Your task to perform on an android device: Go to display settings Image 0: 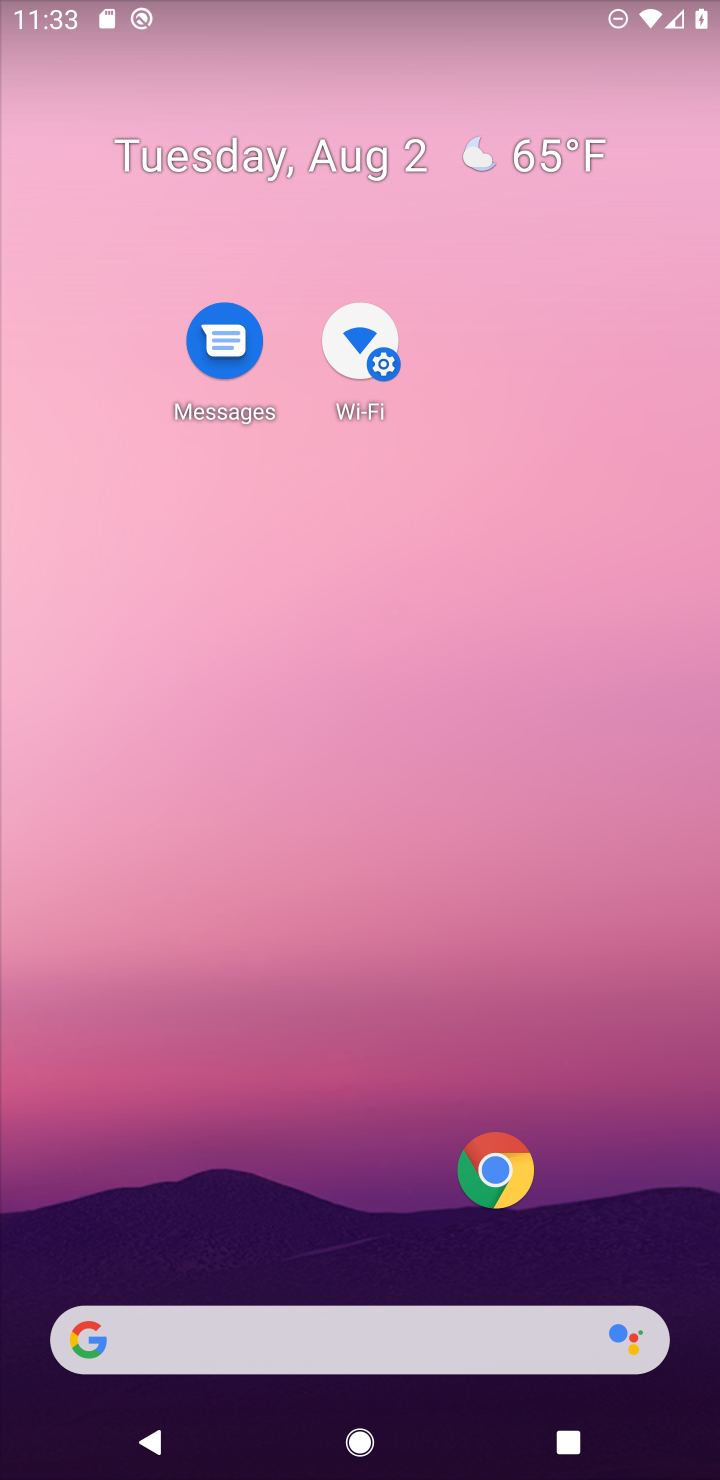
Step 0: drag from (337, 1263) to (319, 561)
Your task to perform on an android device: Go to display settings Image 1: 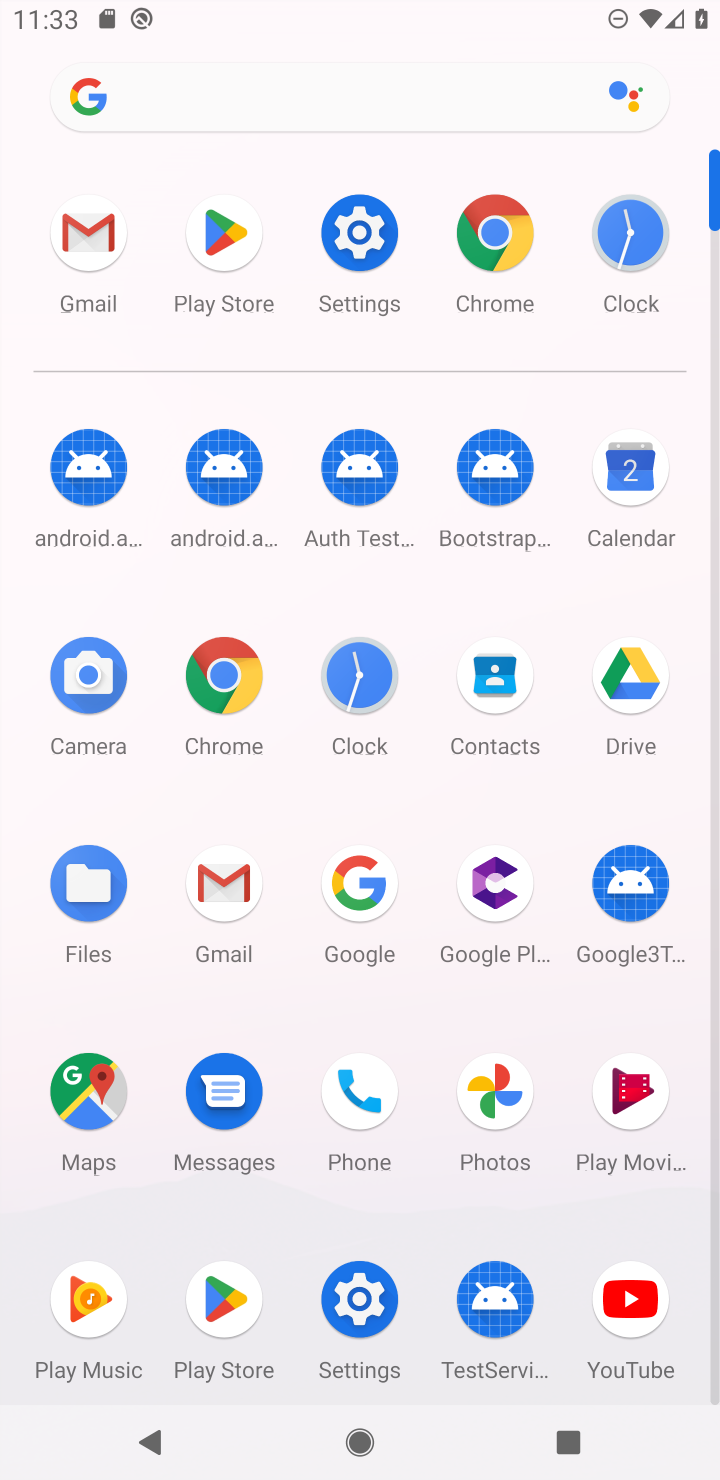
Step 1: click (360, 216)
Your task to perform on an android device: Go to display settings Image 2: 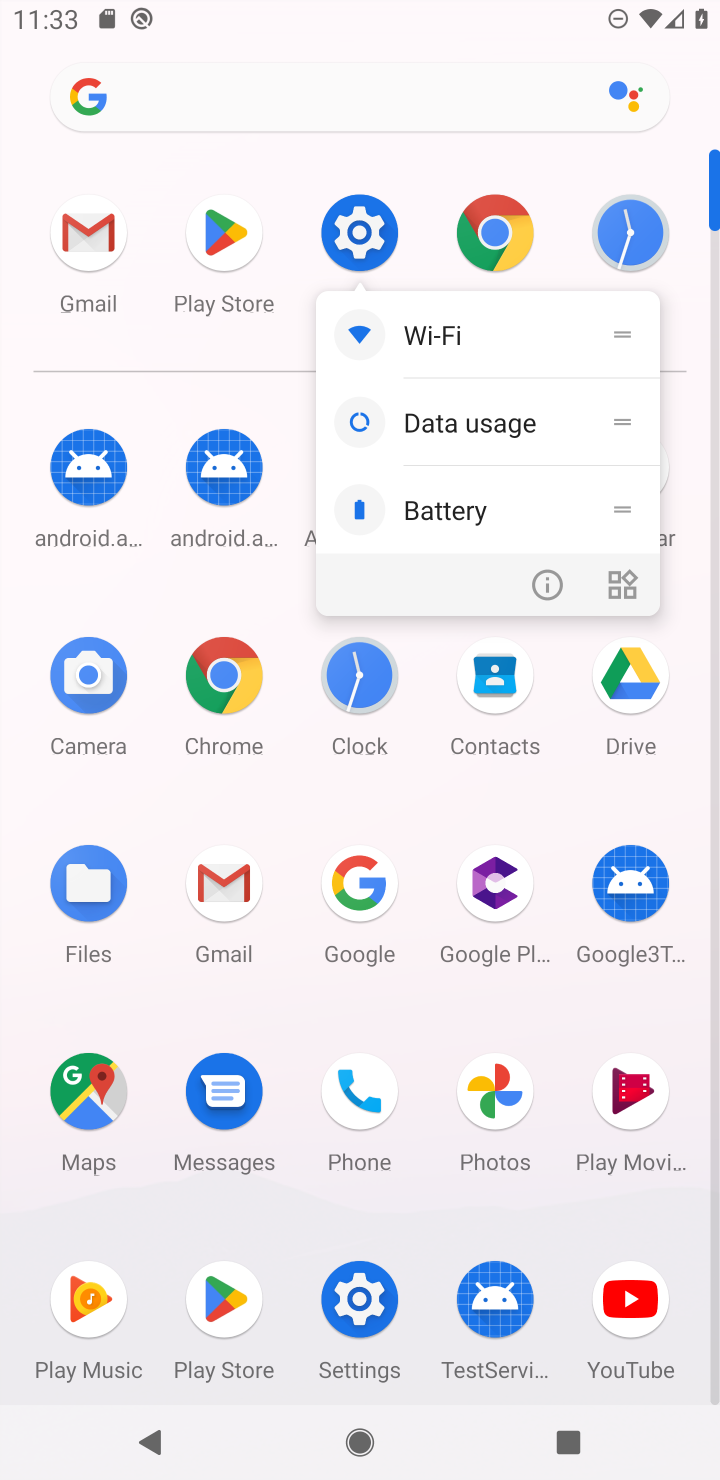
Step 2: click (545, 582)
Your task to perform on an android device: Go to display settings Image 3: 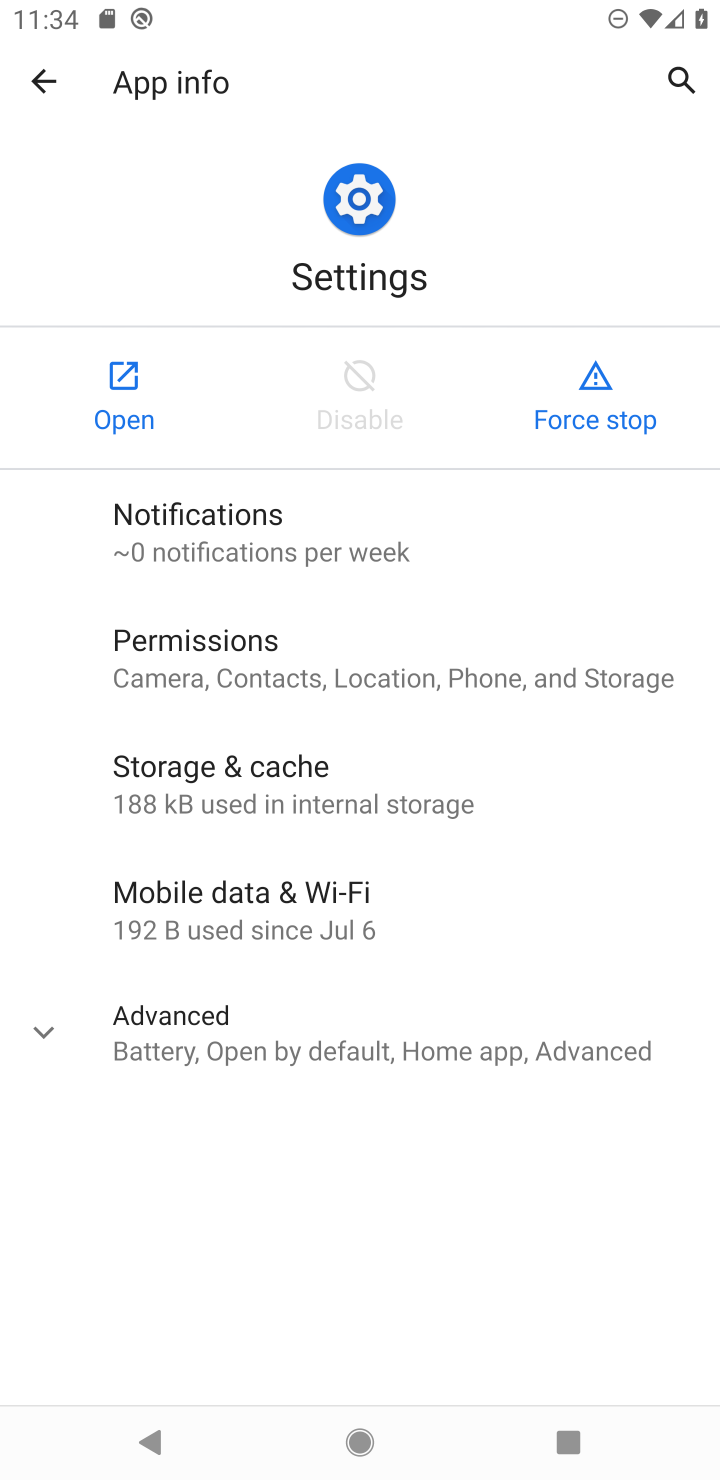
Step 3: click (130, 397)
Your task to perform on an android device: Go to display settings Image 4: 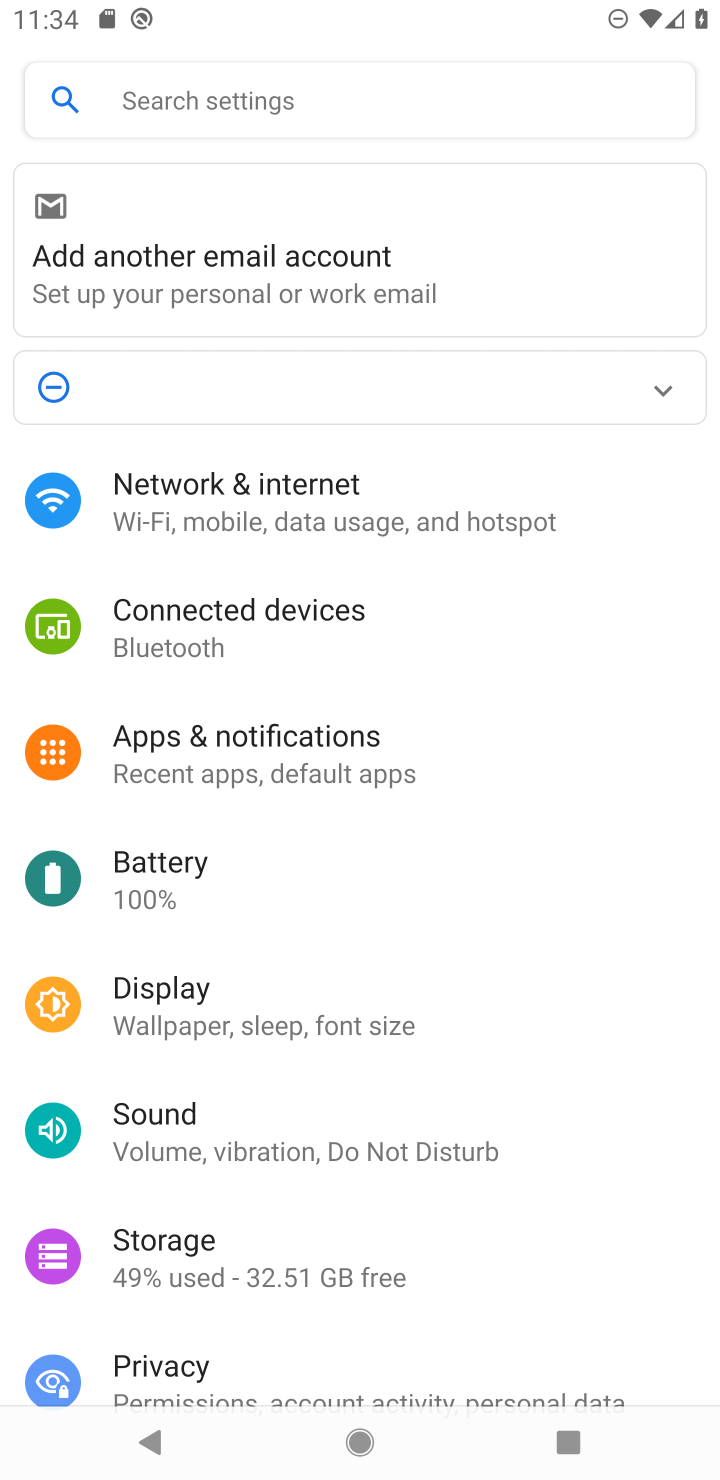
Step 4: click (247, 1013)
Your task to perform on an android device: Go to display settings Image 5: 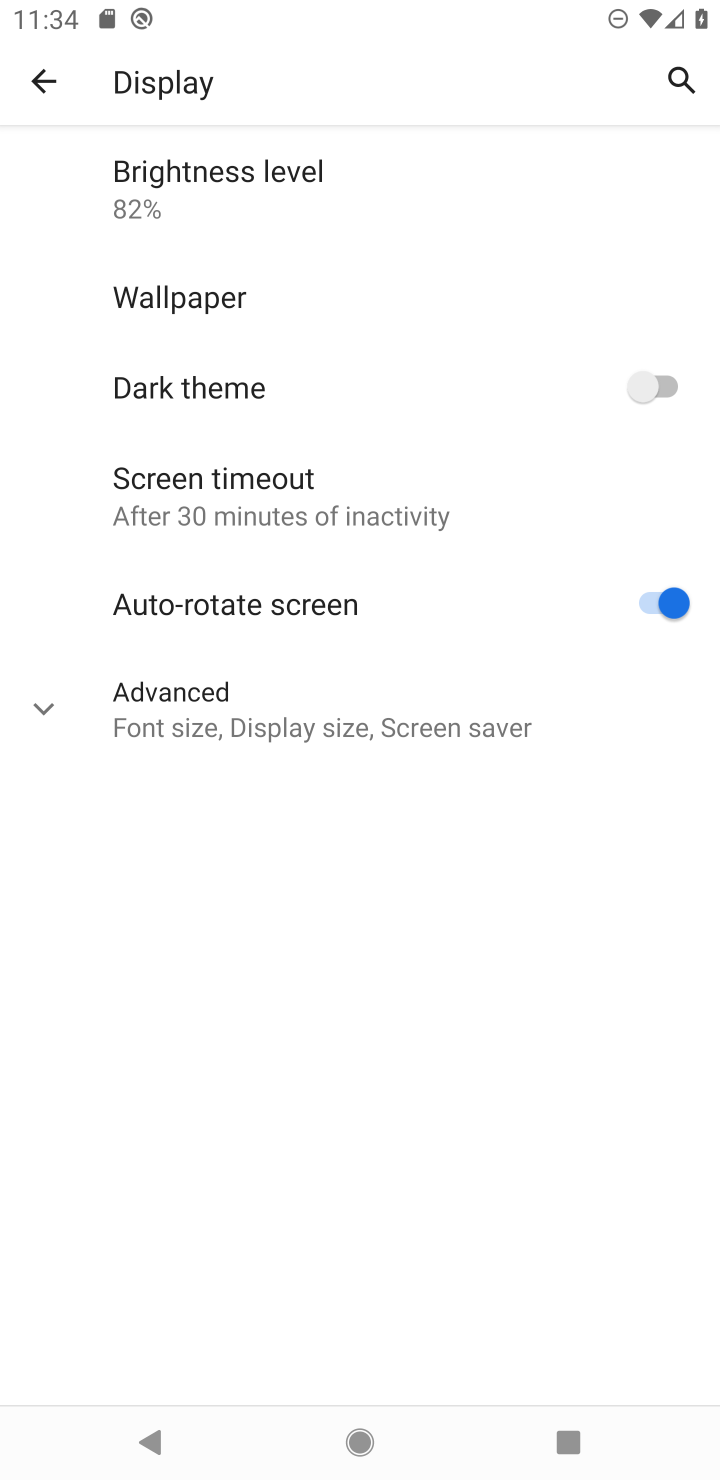
Step 5: drag from (369, 507) to (376, 1217)
Your task to perform on an android device: Go to display settings Image 6: 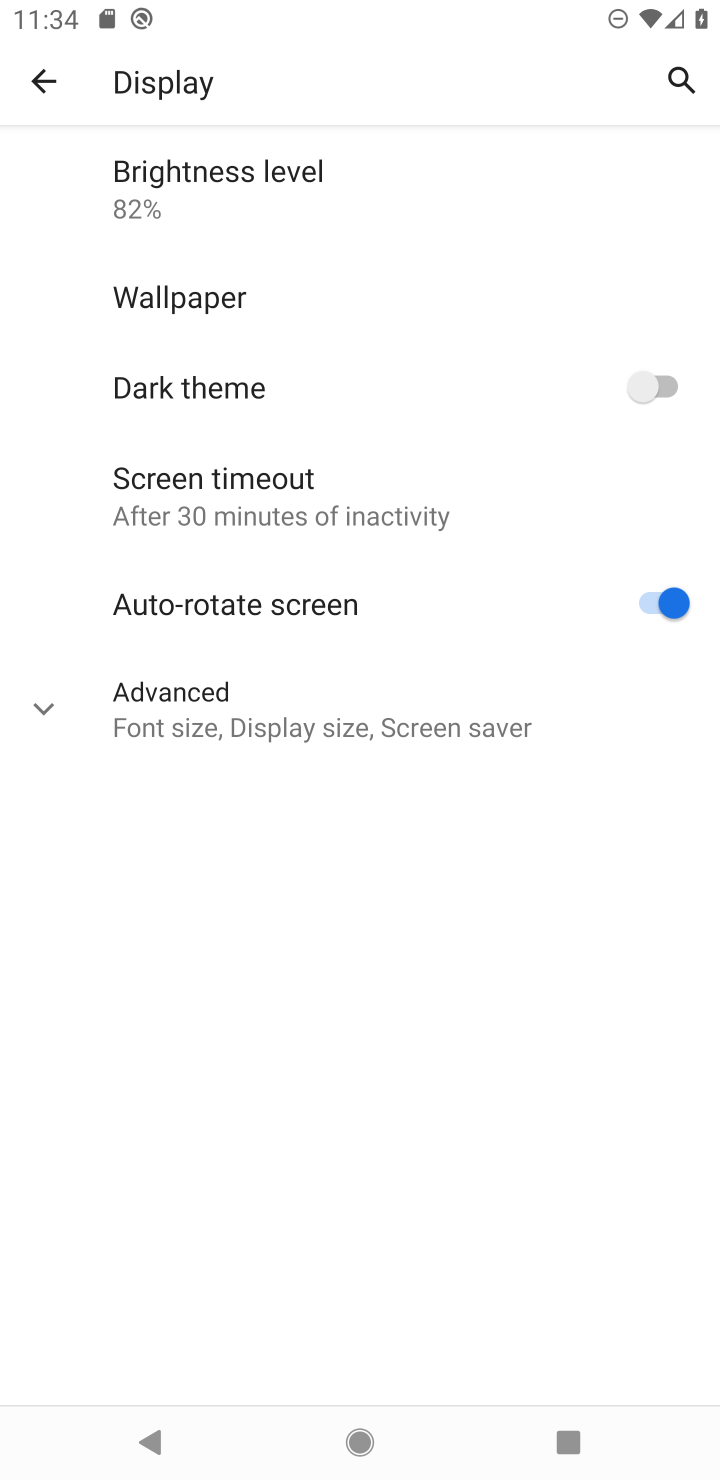
Step 6: drag from (341, 447) to (394, 1445)
Your task to perform on an android device: Go to display settings Image 7: 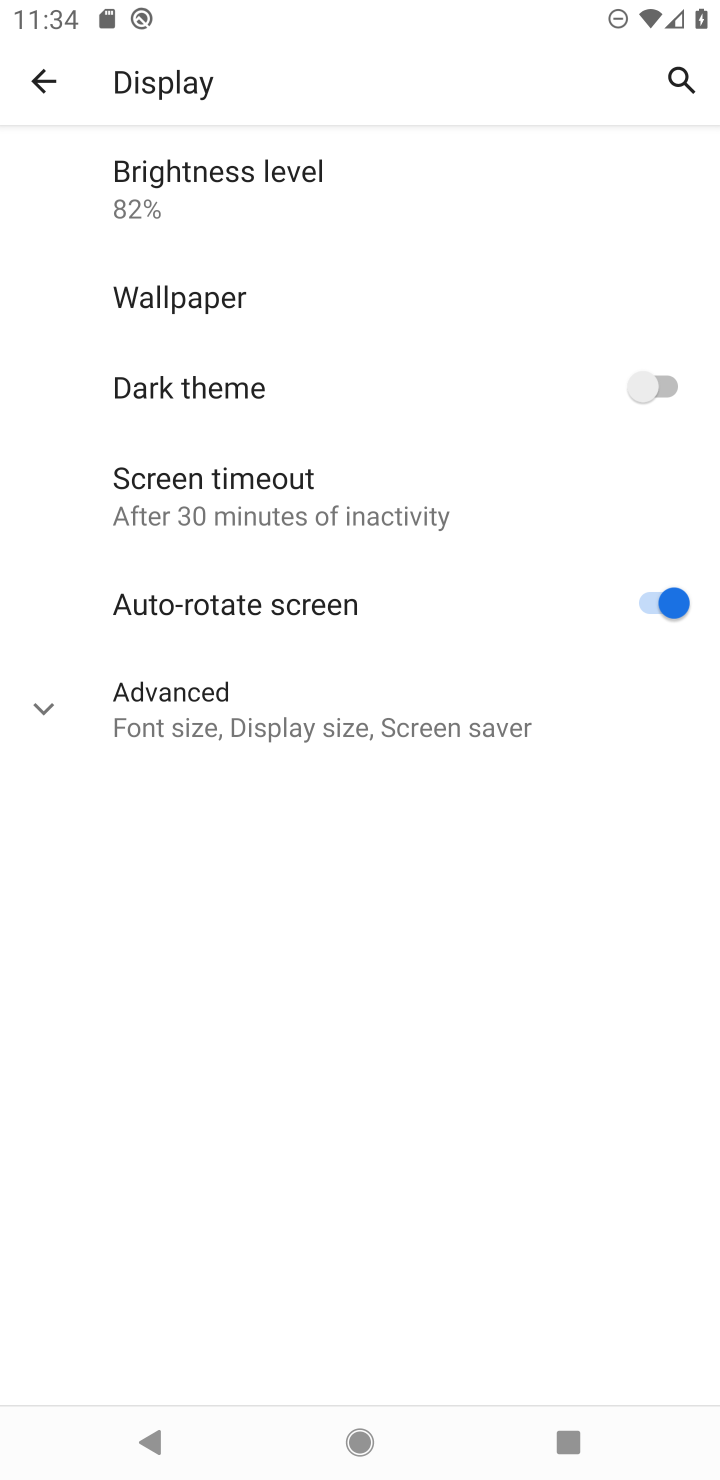
Step 7: click (350, 478)
Your task to perform on an android device: Go to display settings Image 8: 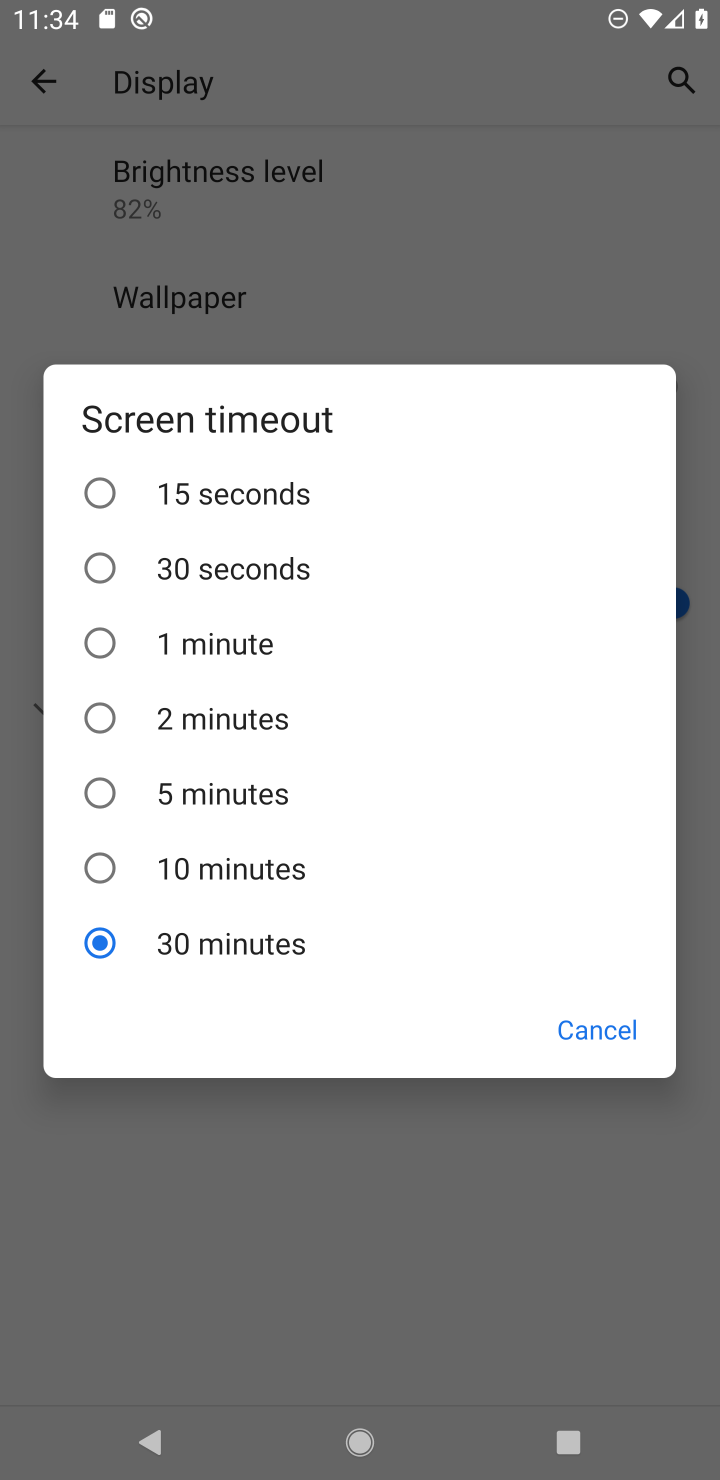
Step 8: click (581, 1035)
Your task to perform on an android device: Go to display settings Image 9: 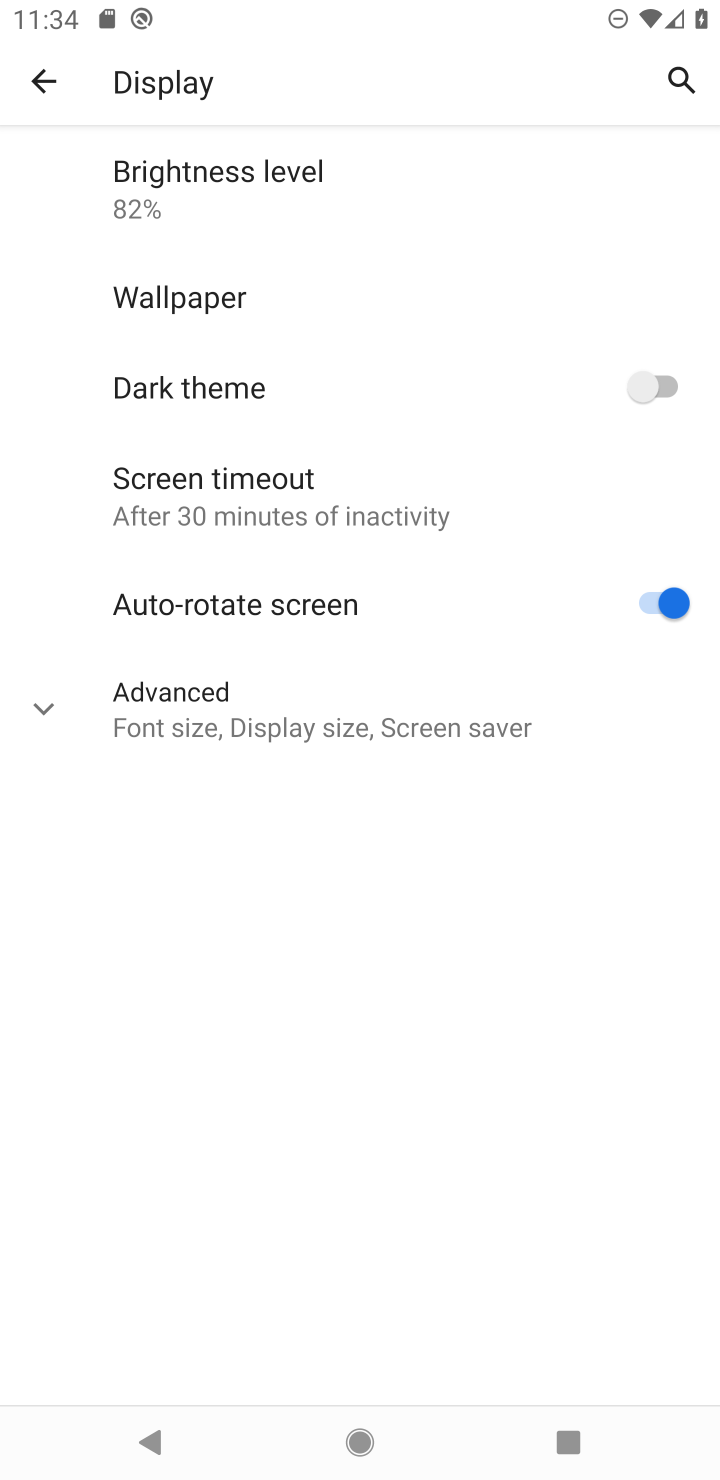
Step 9: task complete